Your task to perform on an android device: Open Google Chrome and click the shortcut for Amazon.com Image 0: 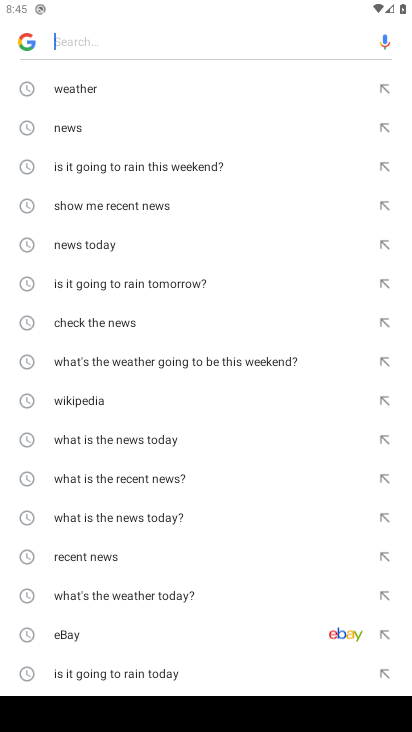
Step 0: press home button
Your task to perform on an android device: Open Google Chrome and click the shortcut for Amazon.com Image 1: 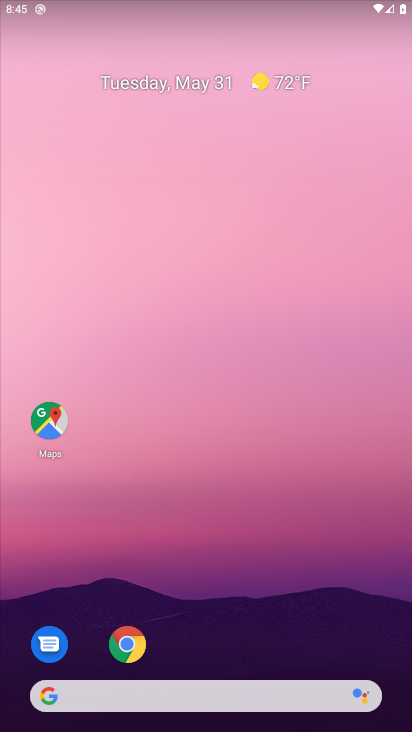
Step 1: click (135, 649)
Your task to perform on an android device: Open Google Chrome and click the shortcut for Amazon.com Image 2: 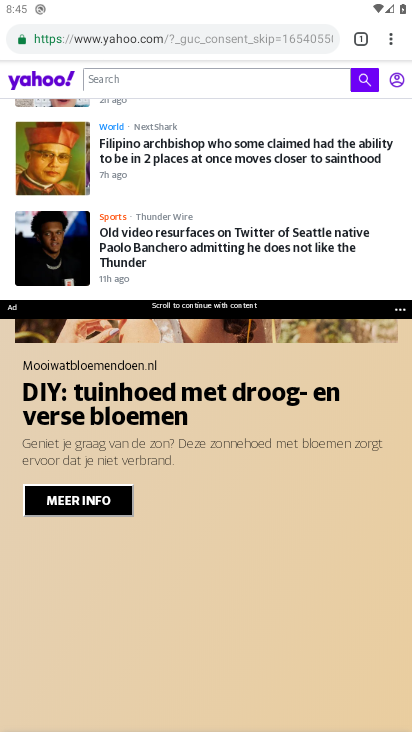
Step 2: click (359, 28)
Your task to perform on an android device: Open Google Chrome and click the shortcut for Amazon.com Image 3: 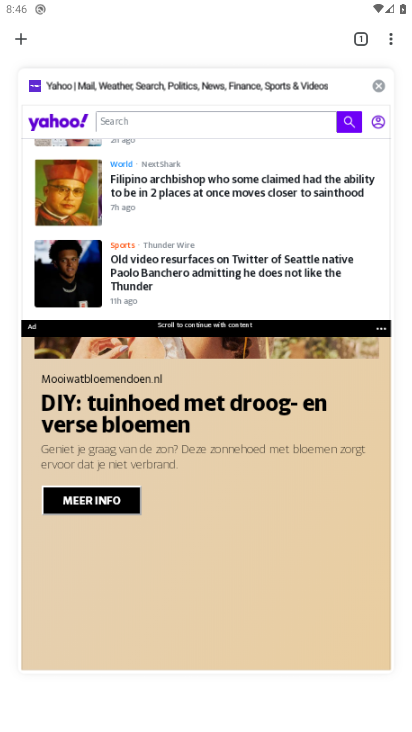
Step 3: click (377, 80)
Your task to perform on an android device: Open Google Chrome and click the shortcut for Amazon.com Image 4: 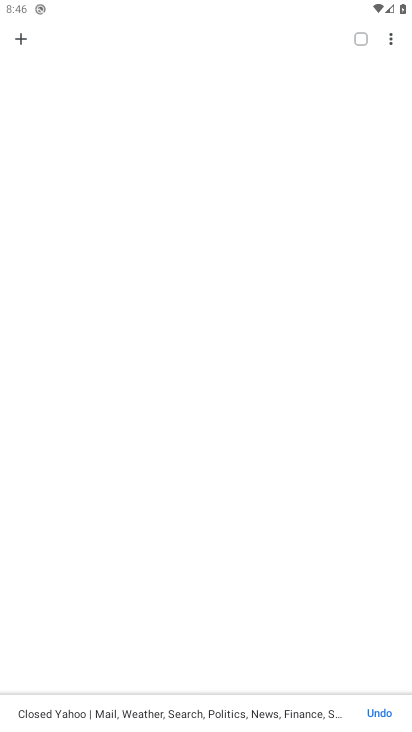
Step 4: click (26, 32)
Your task to perform on an android device: Open Google Chrome and click the shortcut for Amazon.com Image 5: 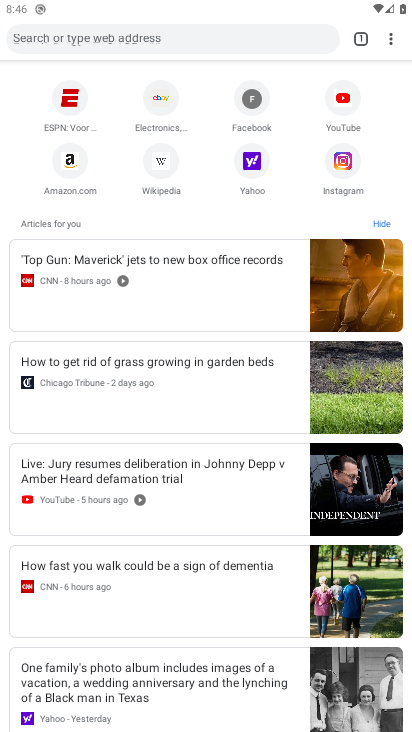
Step 5: click (61, 151)
Your task to perform on an android device: Open Google Chrome and click the shortcut for Amazon.com Image 6: 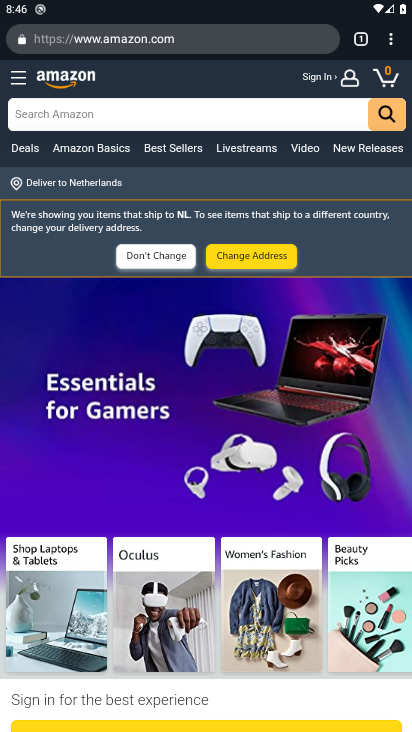
Step 6: task complete